Your task to perform on an android device: search for starred emails in the gmail app Image 0: 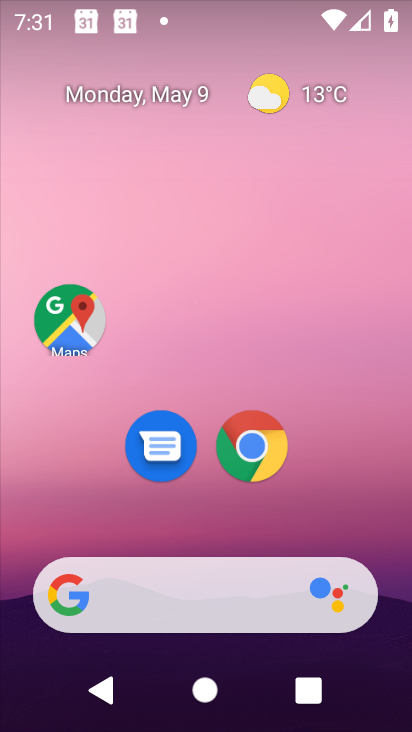
Step 0: drag from (345, 469) to (387, 58)
Your task to perform on an android device: search for starred emails in the gmail app Image 1: 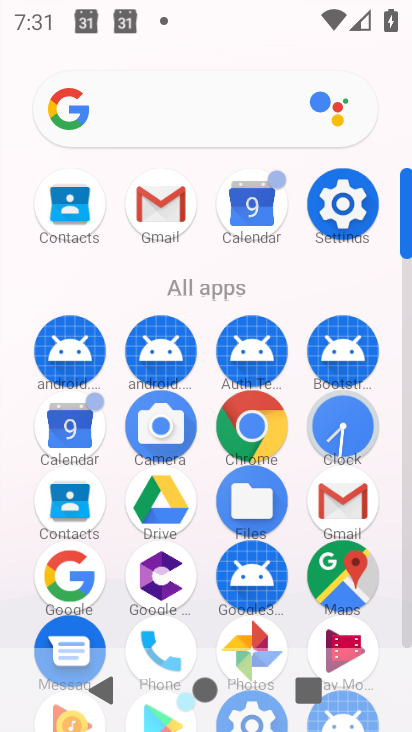
Step 1: click (131, 221)
Your task to perform on an android device: search for starred emails in the gmail app Image 2: 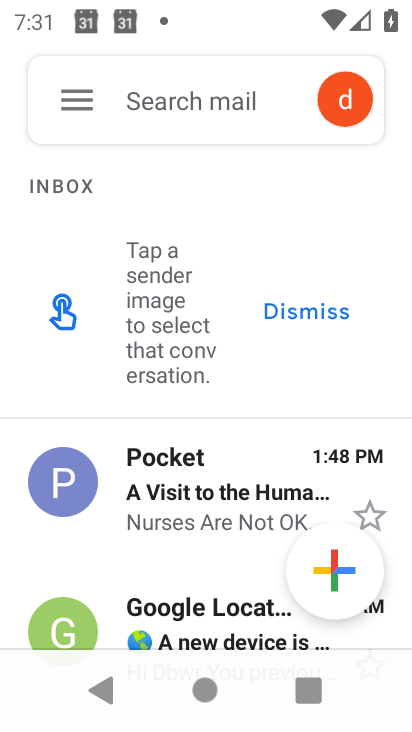
Step 2: click (63, 110)
Your task to perform on an android device: search for starred emails in the gmail app Image 3: 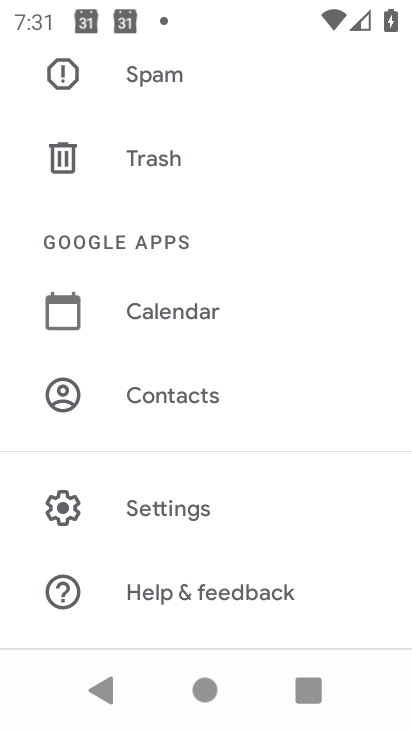
Step 3: drag from (180, 185) to (166, 558)
Your task to perform on an android device: search for starred emails in the gmail app Image 4: 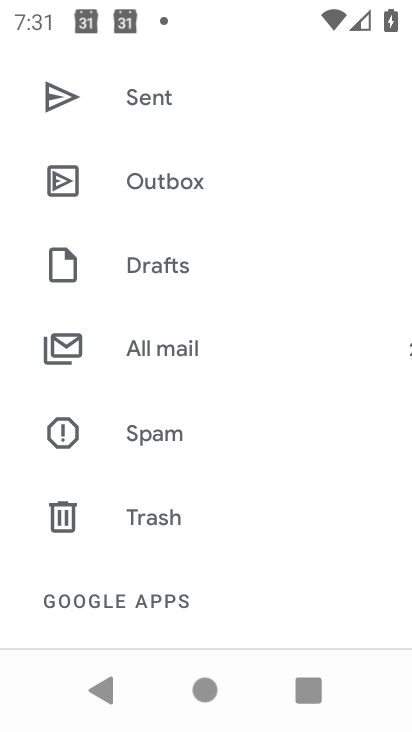
Step 4: drag from (228, 503) to (253, 597)
Your task to perform on an android device: search for starred emails in the gmail app Image 5: 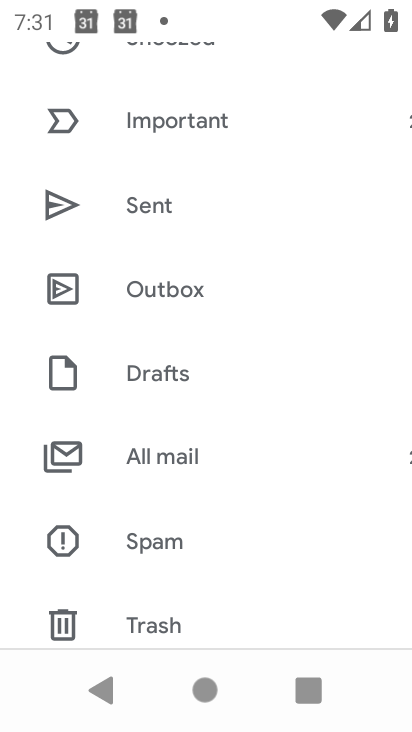
Step 5: drag from (264, 274) to (266, 533)
Your task to perform on an android device: search for starred emails in the gmail app Image 6: 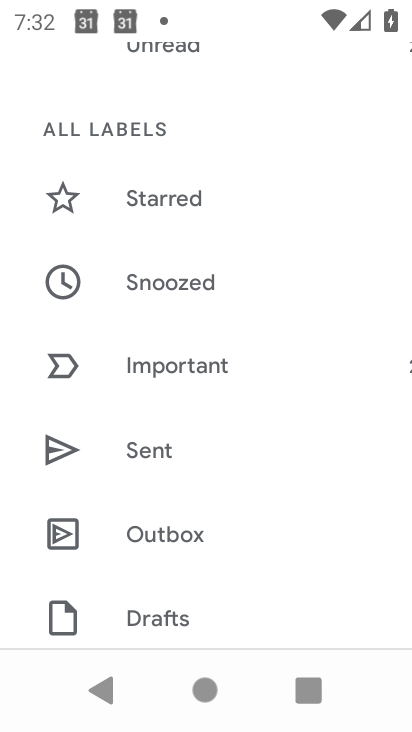
Step 6: click (183, 203)
Your task to perform on an android device: search for starred emails in the gmail app Image 7: 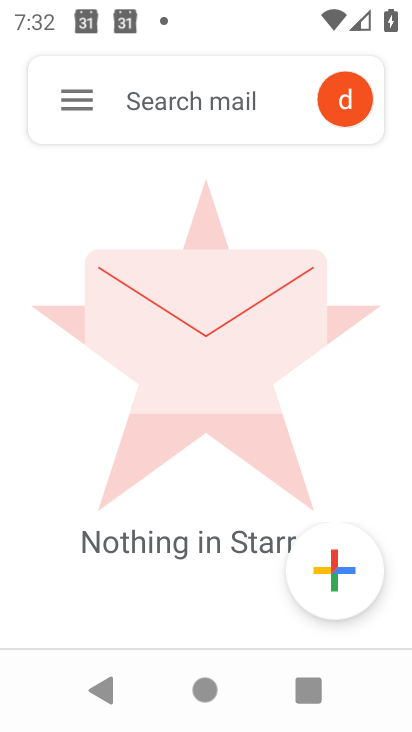
Step 7: task complete